Your task to perform on an android device: turn notification dots on Image 0: 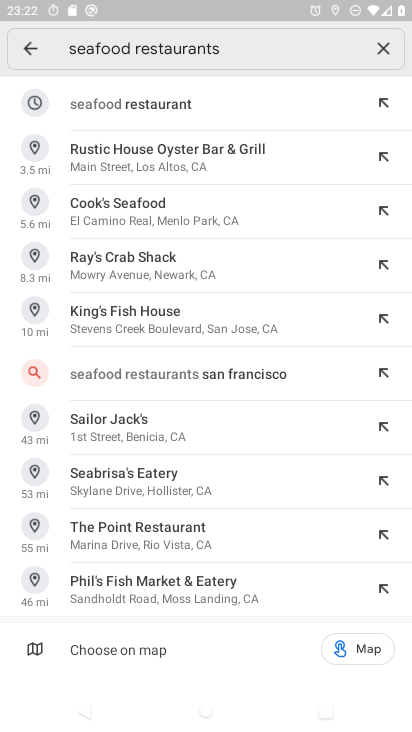
Step 0: press home button
Your task to perform on an android device: turn notification dots on Image 1: 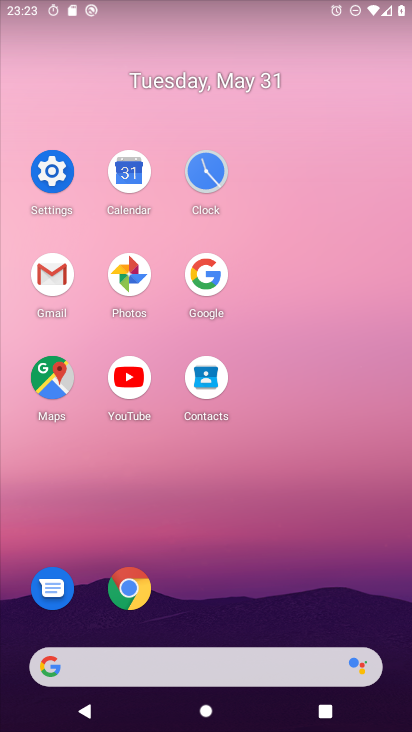
Step 1: click (53, 166)
Your task to perform on an android device: turn notification dots on Image 2: 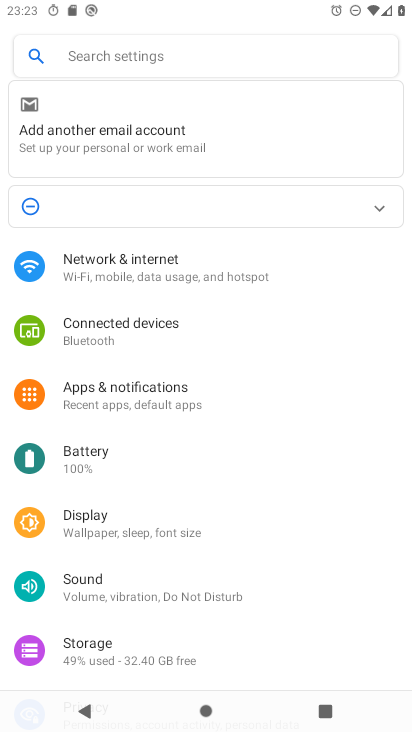
Step 2: click (210, 402)
Your task to perform on an android device: turn notification dots on Image 3: 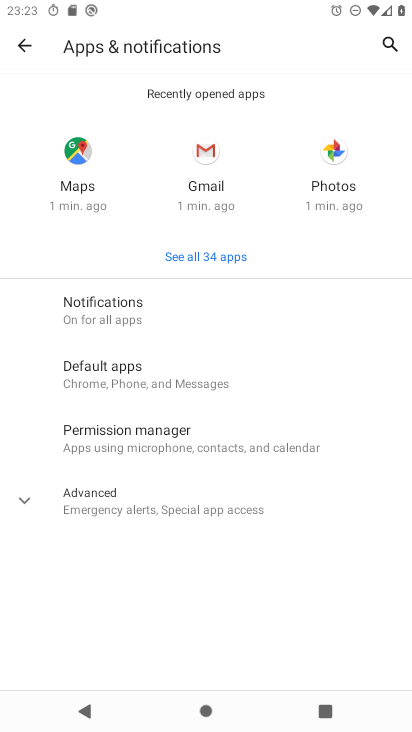
Step 3: click (161, 481)
Your task to perform on an android device: turn notification dots on Image 4: 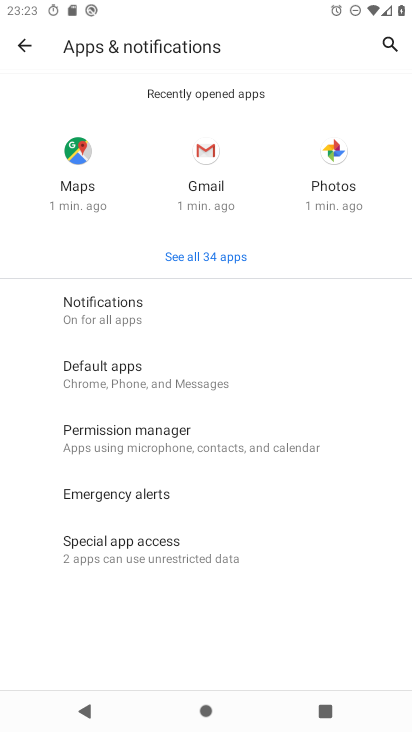
Step 4: click (133, 300)
Your task to perform on an android device: turn notification dots on Image 5: 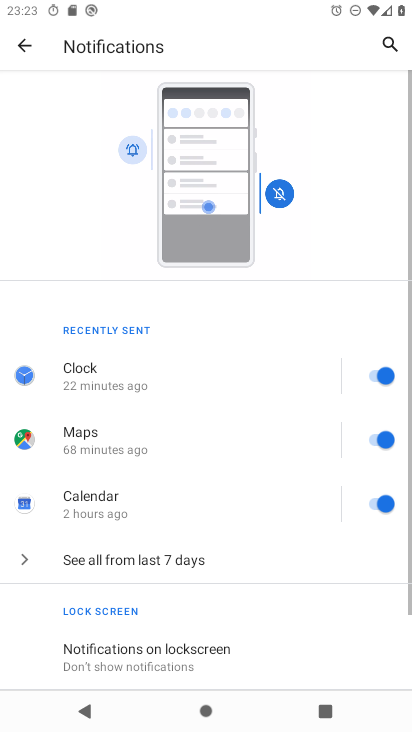
Step 5: drag from (179, 587) to (193, 308)
Your task to perform on an android device: turn notification dots on Image 6: 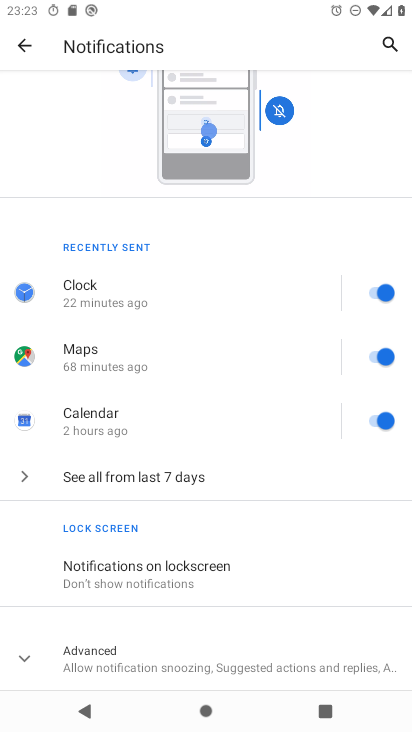
Step 6: click (187, 646)
Your task to perform on an android device: turn notification dots on Image 7: 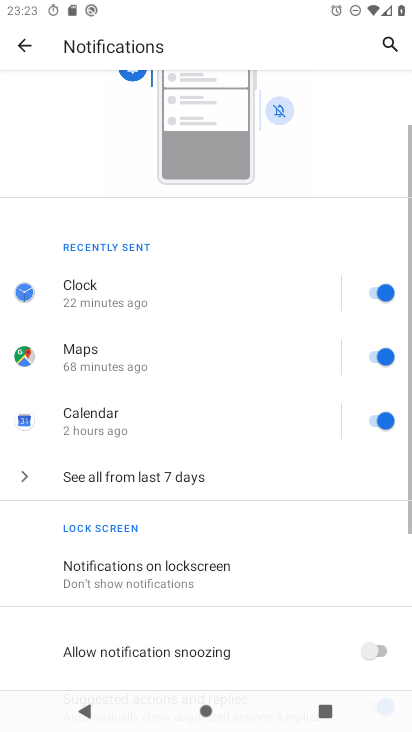
Step 7: drag from (167, 584) to (170, 222)
Your task to perform on an android device: turn notification dots on Image 8: 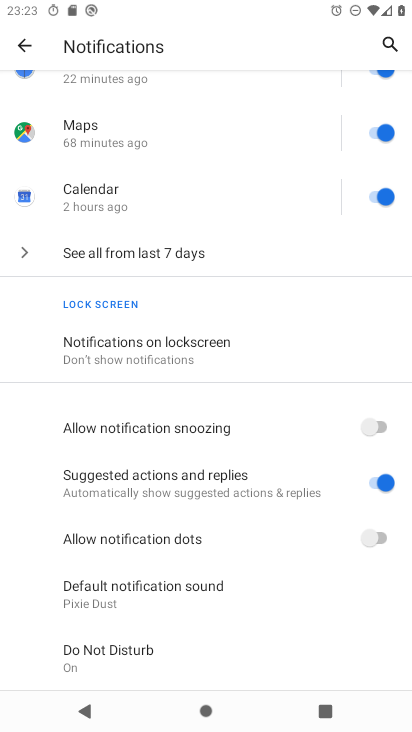
Step 8: click (367, 534)
Your task to perform on an android device: turn notification dots on Image 9: 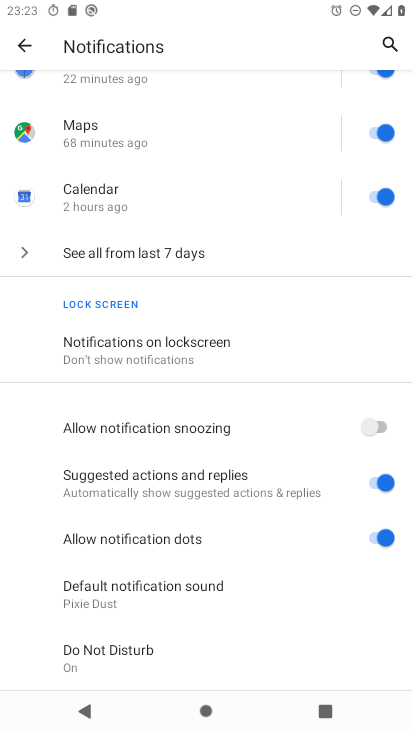
Step 9: task complete